Your task to perform on an android device: turn pop-ups on in chrome Image 0: 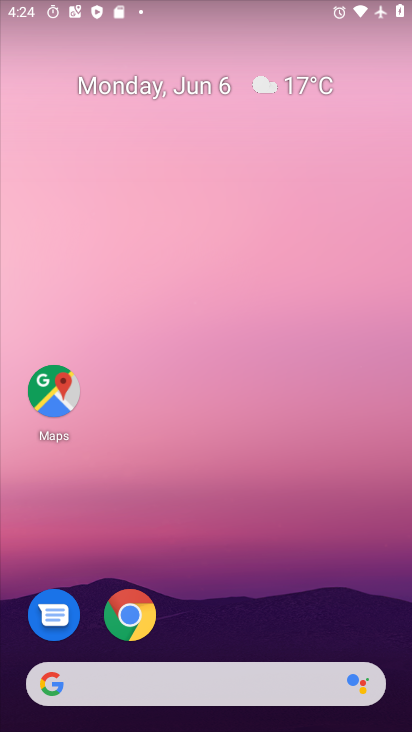
Step 0: drag from (219, 584) to (4, 278)
Your task to perform on an android device: turn pop-ups on in chrome Image 1: 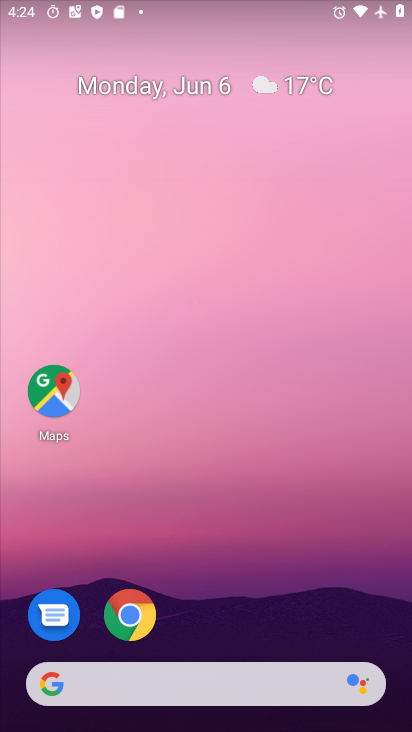
Step 1: drag from (11, 560) to (14, 67)
Your task to perform on an android device: turn pop-ups on in chrome Image 2: 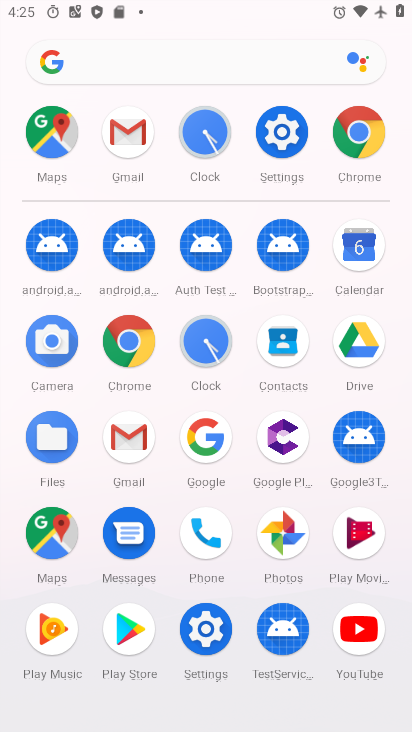
Step 2: click (127, 337)
Your task to perform on an android device: turn pop-ups on in chrome Image 3: 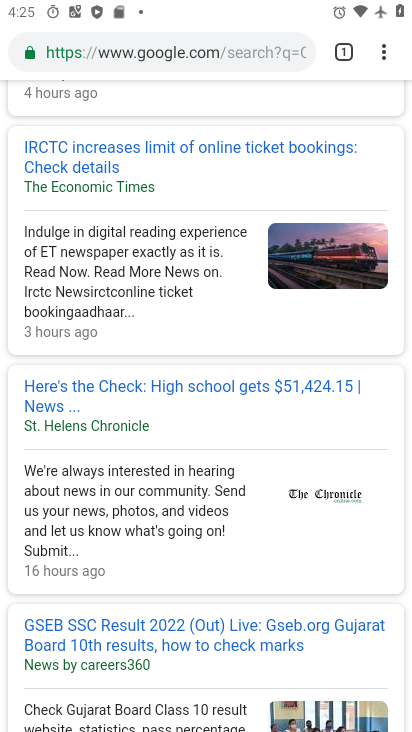
Step 3: drag from (380, 49) to (193, 575)
Your task to perform on an android device: turn pop-ups on in chrome Image 4: 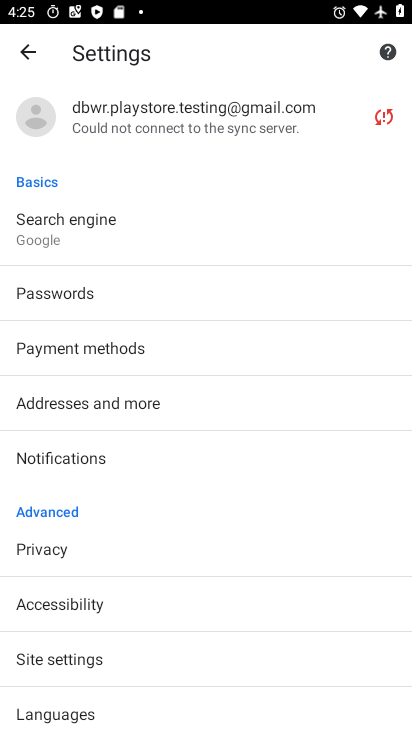
Step 4: drag from (194, 466) to (223, 199)
Your task to perform on an android device: turn pop-ups on in chrome Image 5: 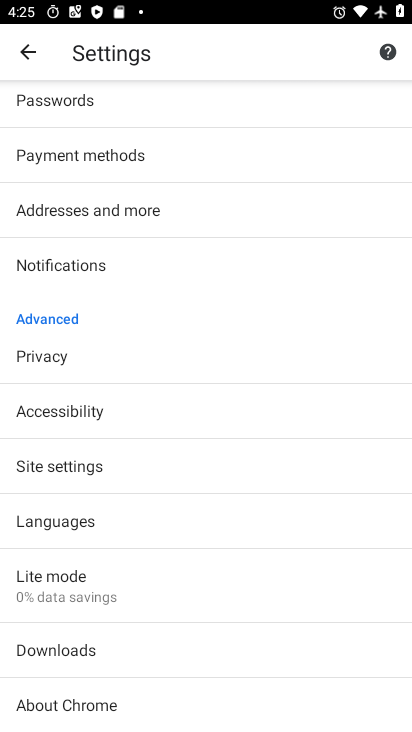
Step 5: click (112, 471)
Your task to perform on an android device: turn pop-ups on in chrome Image 6: 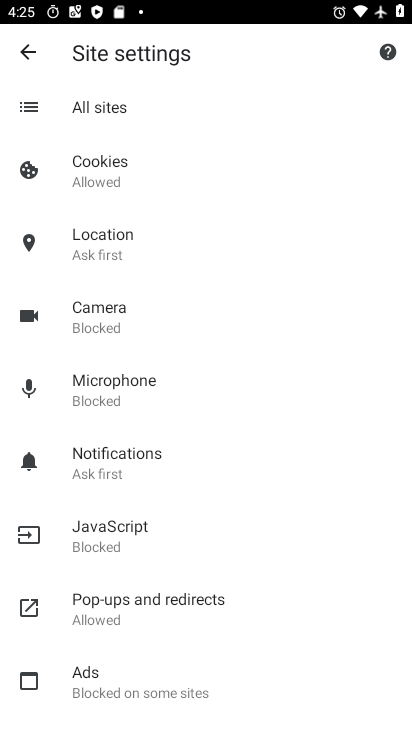
Step 6: drag from (150, 627) to (196, 238)
Your task to perform on an android device: turn pop-ups on in chrome Image 7: 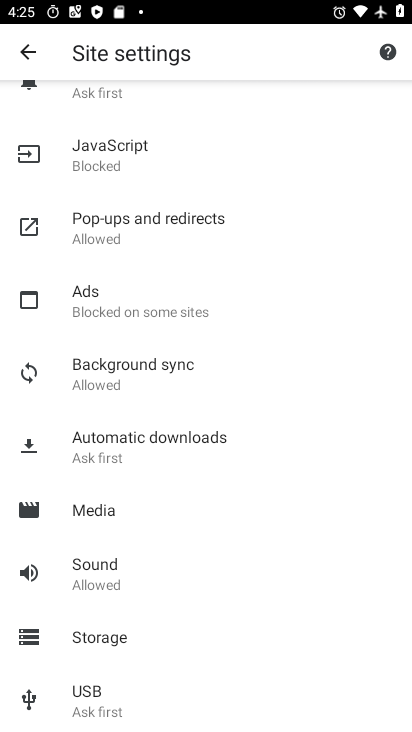
Step 7: click (140, 221)
Your task to perform on an android device: turn pop-ups on in chrome Image 8: 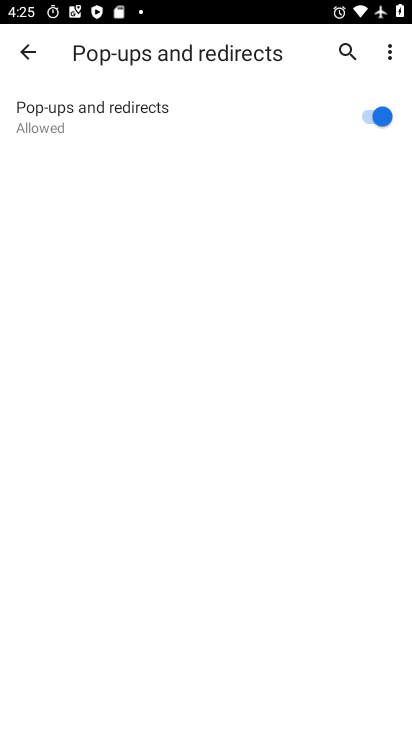
Step 8: task complete